Your task to perform on an android device: Go to internet settings Image 0: 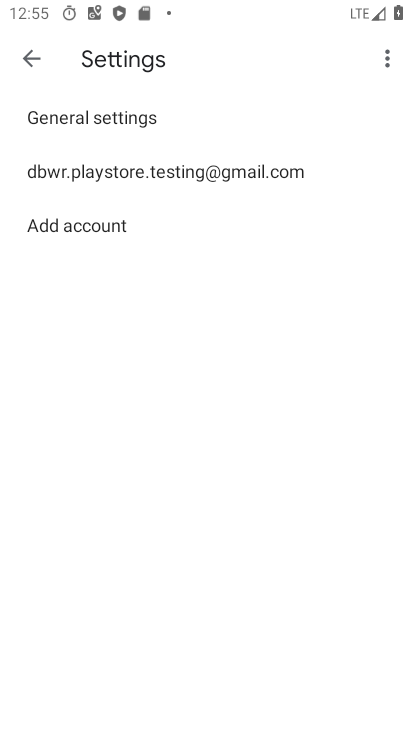
Step 0: press home button
Your task to perform on an android device: Go to internet settings Image 1: 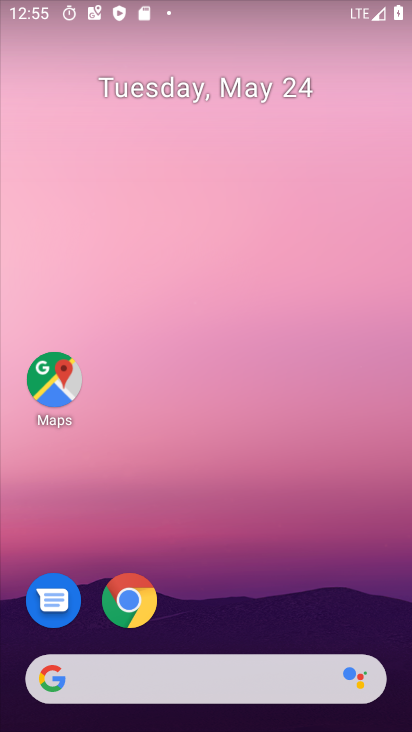
Step 1: drag from (285, 584) to (248, 203)
Your task to perform on an android device: Go to internet settings Image 2: 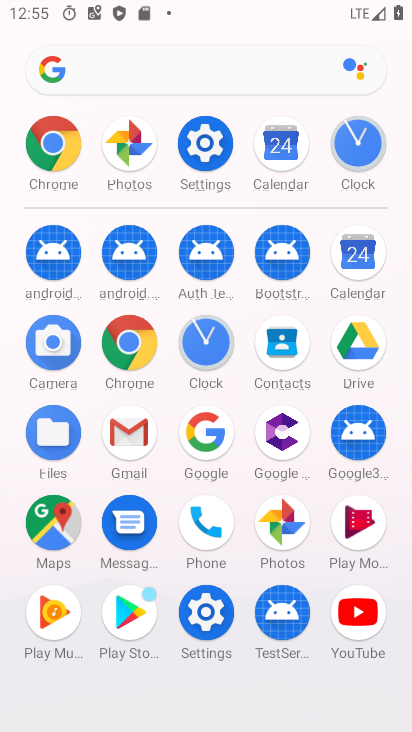
Step 2: click (216, 140)
Your task to perform on an android device: Go to internet settings Image 3: 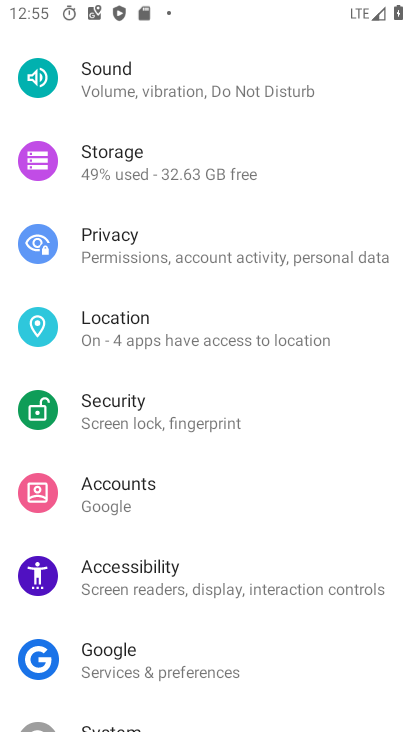
Step 3: drag from (195, 136) to (218, 539)
Your task to perform on an android device: Go to internet settings Image 4: 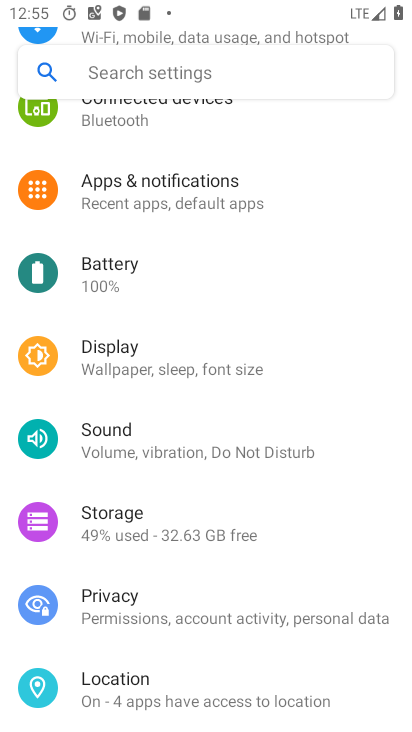
Step 4: drag from (178, 182) to (208, 568)
Your task to perform on an android device: Go to internet settings Image 5: 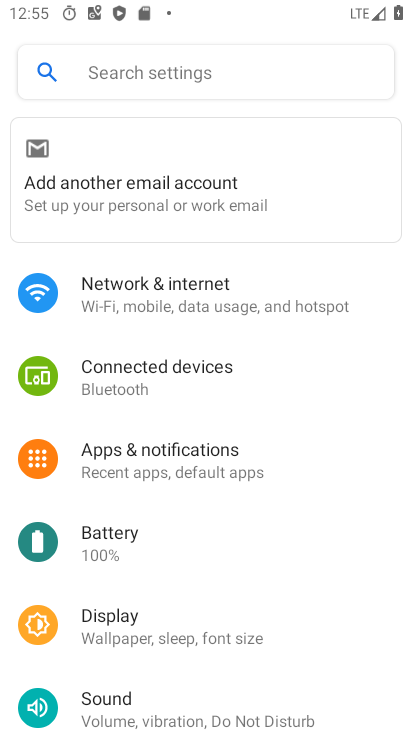
Step 5: click (224, 300)
Your task to perform on an android device: Go to internet settings Image 6: 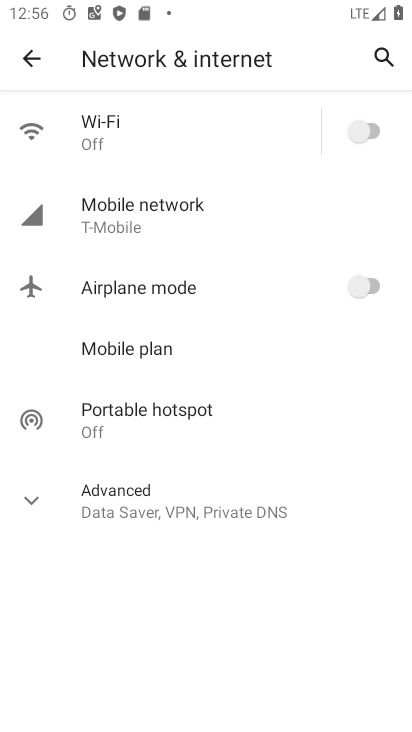
Step 6: task complete